Your task to perform on an android device: open sync settings in chrome Image 0: 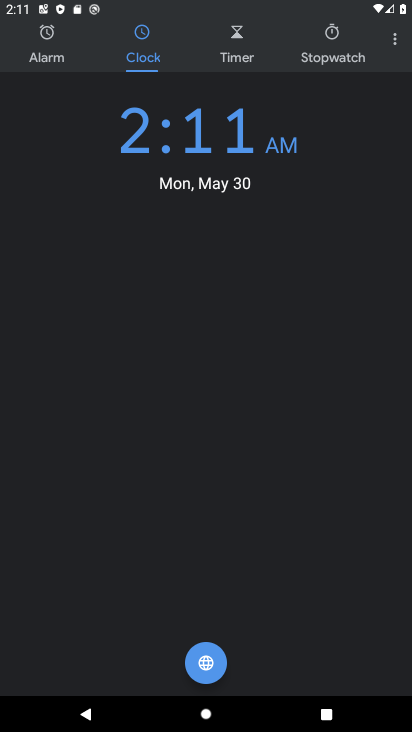
Step 0: press home button
Your task to perform on an android device: open sync settings in chrome Image 1: 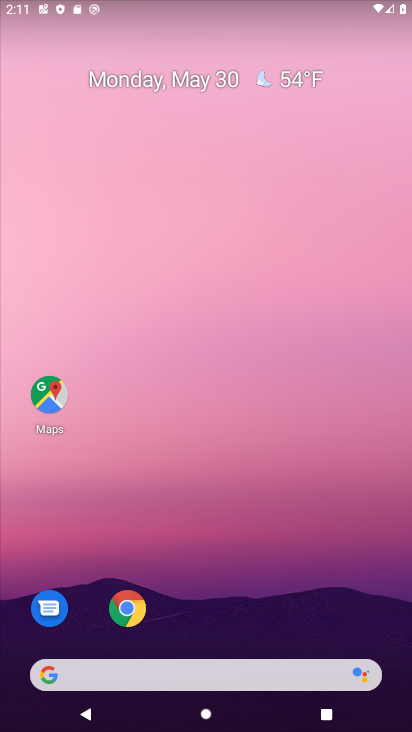
Step 1: click (128, 608)
Your task to perform on an android device: open sync settings in chrome Image 2: 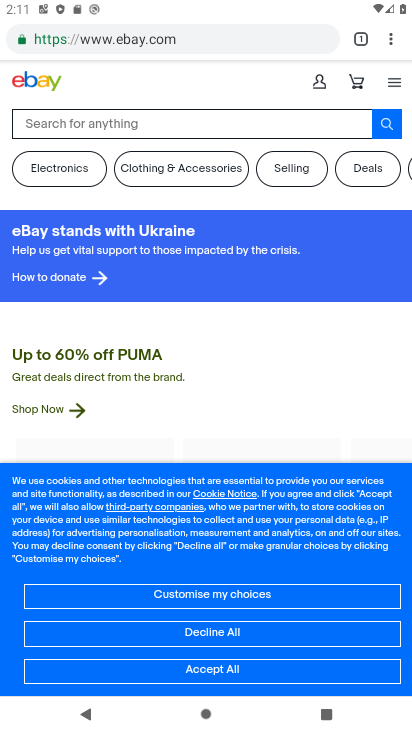
Step 2: click (393, 39)
Your task to perform on an android device: open sync settings in chrome Image 3: 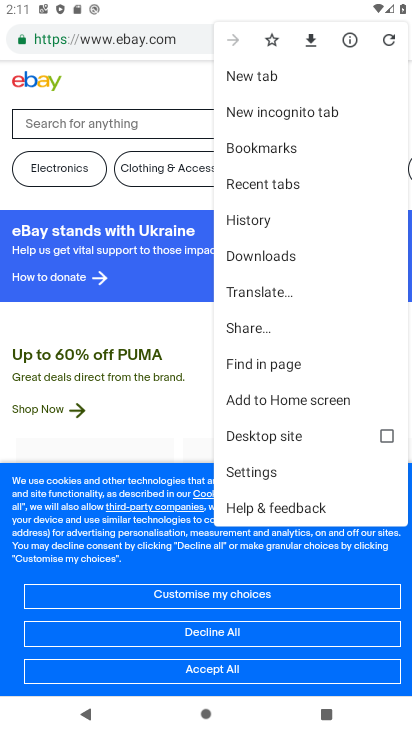
Step 3: click (290, 468)
Your task to perform on an android device: open sync settings in chrome Image 4: 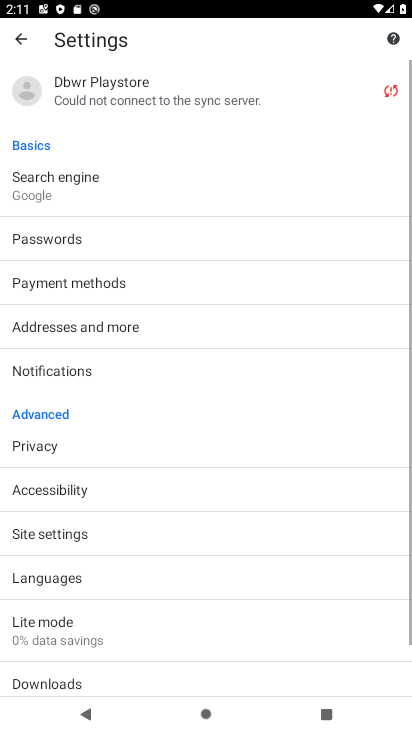
Step 4: click (118, 504)
Your task to perform on an android device: open sync settings in chrome Image 5: 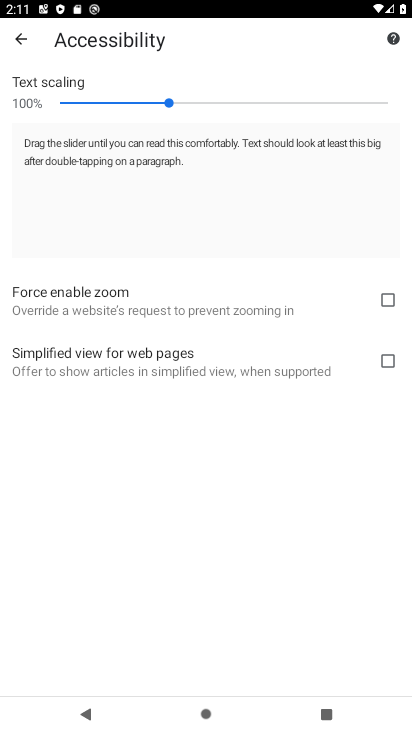
Step 5: press back button
Your task to perform on an android device: open sync settings in chrome Image 6: 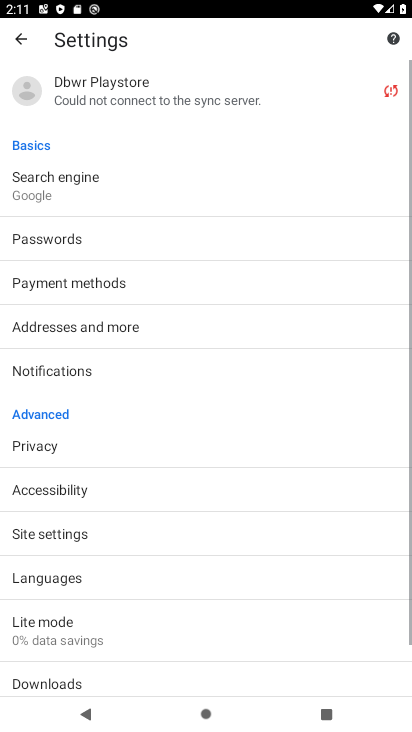
Step 6: click (91, 535)
Your task to perform on an android device: open sync settings in chrome Image 7: 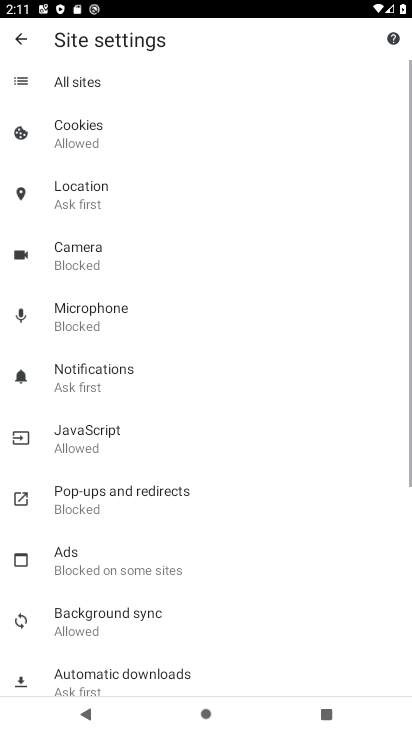
Step 7: click (191, 617)
Your task to perform on an android device: open sync settings in chrome Image 8: 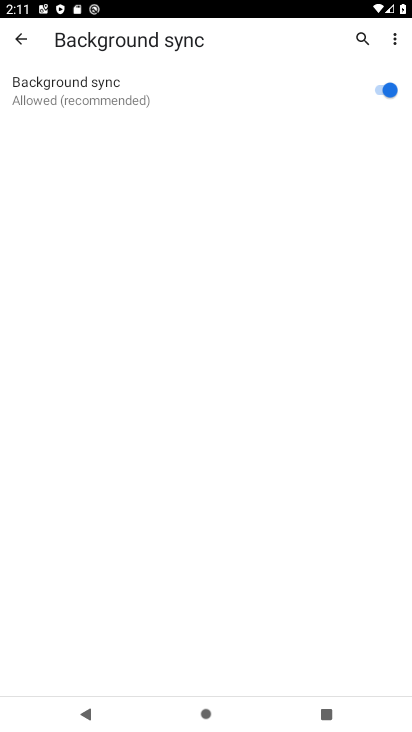
Step 8: task complete